Your task to perform on an android device: Go to wifi settings Image 0: 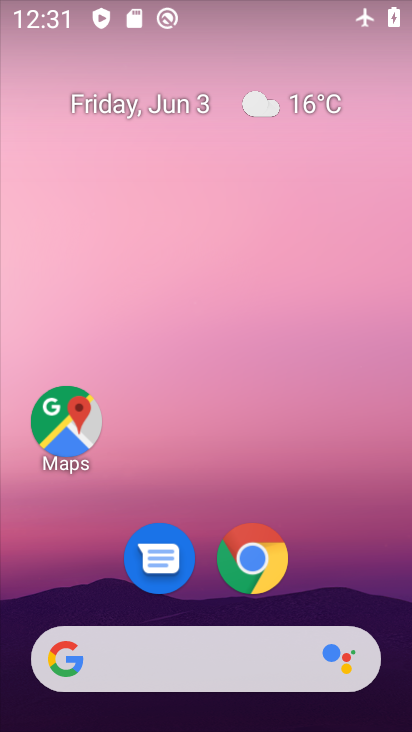
Step 0: drag from (386, 591) to (391, 226)
Your task to perform on an android device: Go to wifi settings Image 1: 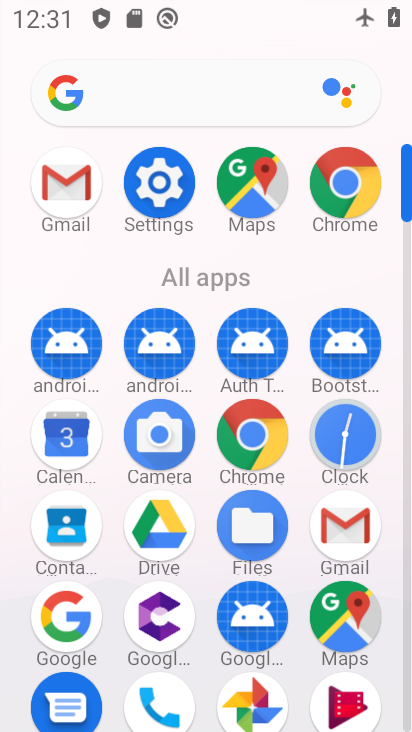
Step 1: click (174, 211)
Your task to perform on an android device: Go to wifi settings Image 2: 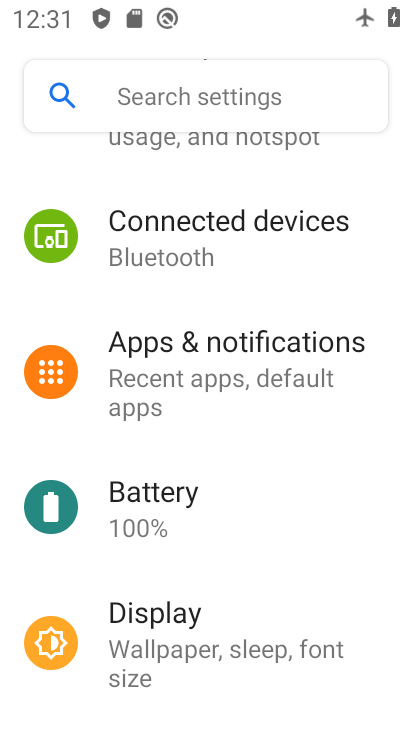
Step 2: drag from (321, 492) to (311, 347)
Your task to perform on an android device: Go to wifi settings Image 3: 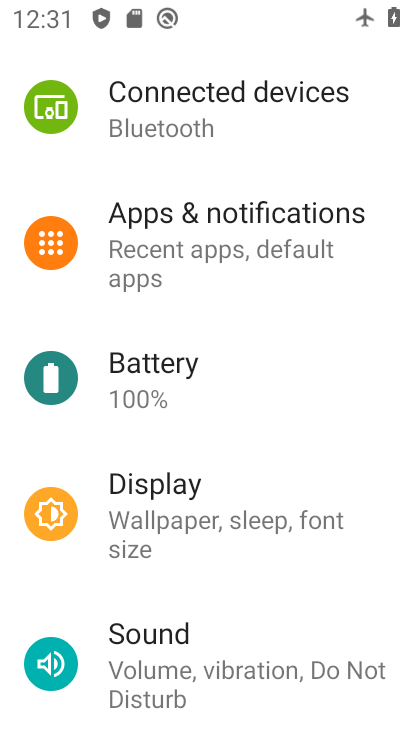
Step 3: drag from (311, 472) to (306, 358)
Your task to perform on an android device: Go to wifi settings Image 4: 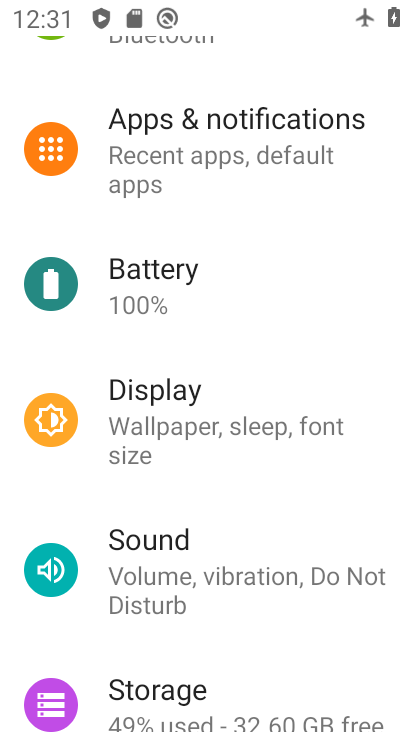
Step 4: drag from (300, 491) to (341, 308)
Your task to perform on an android device: Go to wifi settings Image 5: 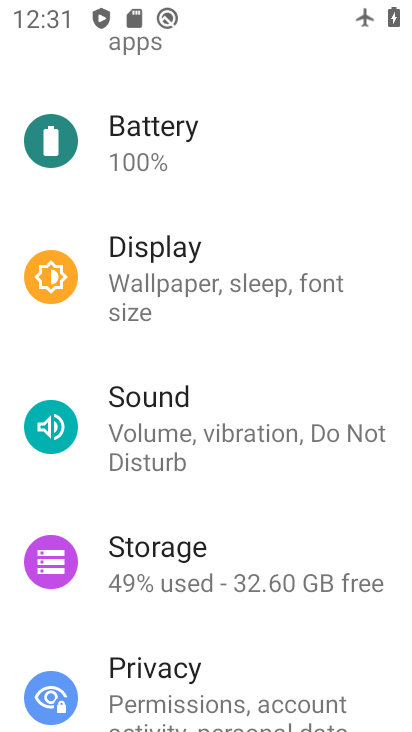
Step 5: drag from (360, 382) to (372, 335)
Your task to perform on an android device: Go to wifi settings Image 6: 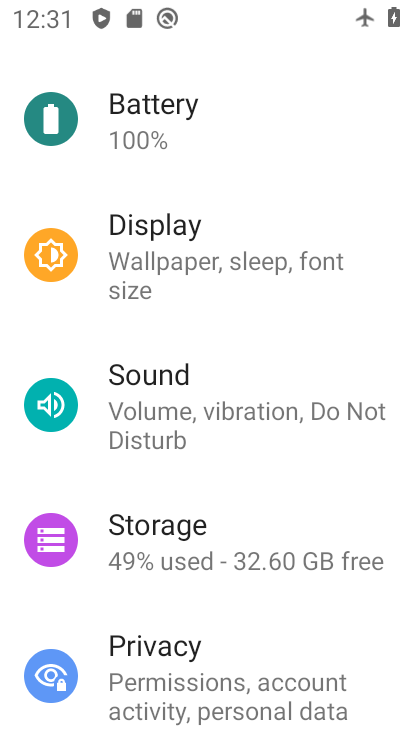
Step 6: drag from (330, 460) to (321, 337)
Your task to perform on an android device: Go to wifi settings Image 7: 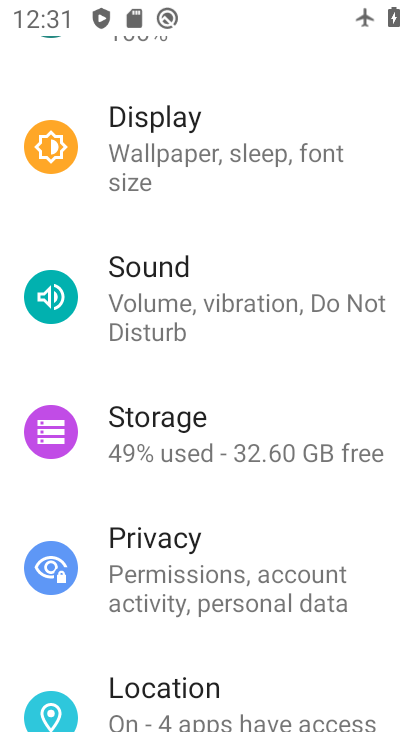
Step 7: drag from (312, 526) to (318, 381)
Your task to perform on an android device: Go to wifi settings Image 8: 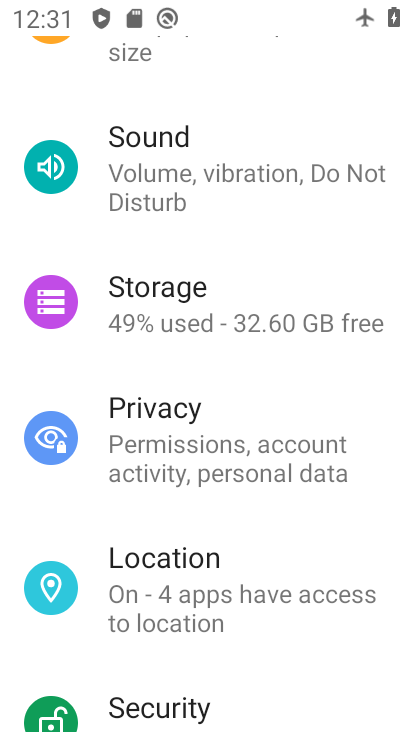
Step 8: drag from (332, 603) to (355, 405)
Your task to perform on an android device: Go to wifi settings Image 9: 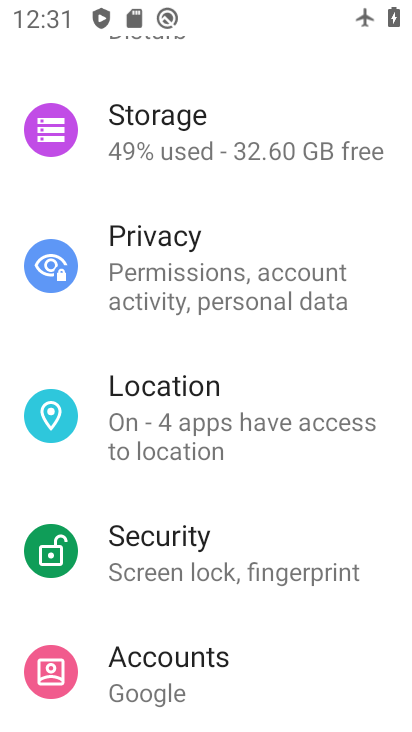
Step 9: drag from (320, 623) to (304, 466)
Your task to perform on an android device: Go to wifi settings Image 10: 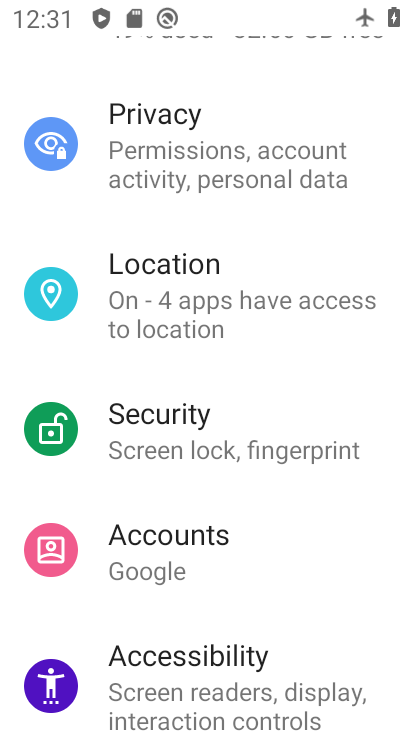
Step 10: drag from (319, 554) to (327, 431)
Your task to perform on an android device: Go to wifi settings Image 11: 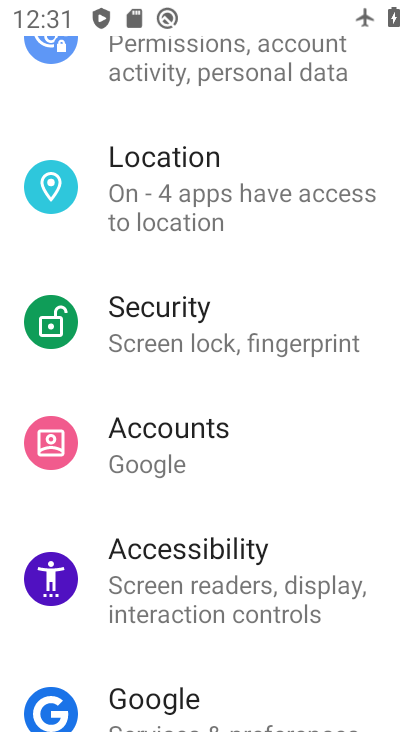
Step 11: drag from (340, 476) to (355, 343)
Your task to perform on an android device: Go to wifi settings Image 12: 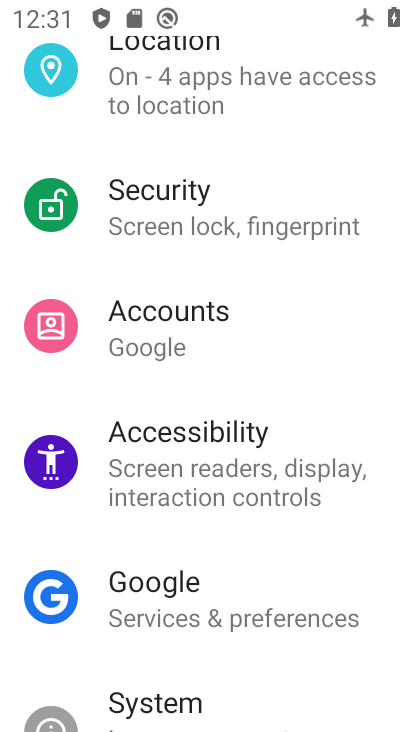
Step 12: drag from (367, 524) to (380, 323)
Your task to perform on an android device: Go to wifi settings Image 13: 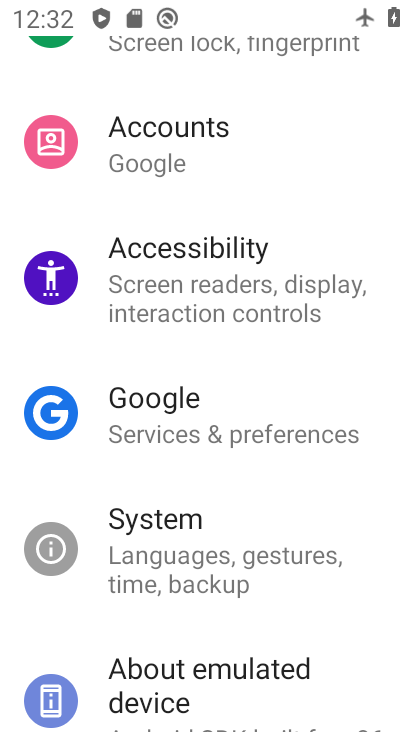
Step 13: drag from (369, 213) to (362, 351)
Your task to perform on an android device: Go to wifi settings Image 14: 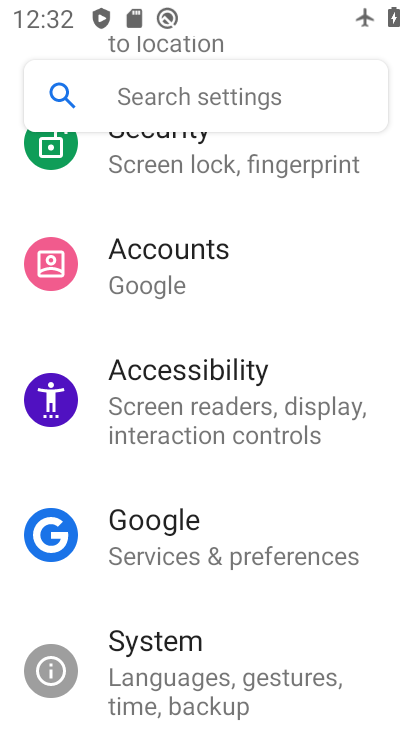
Step 14: drag from (353, 220) to (353, 353)
Your task to perform on an android device: Go to wifi settings Image 15: 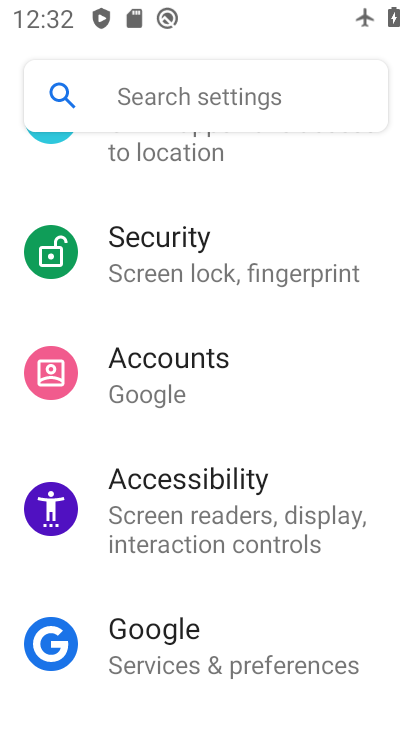
Step 15: drag from (341, 229) to (348, 367)
Your task to perform on an android device: Go to wifi settings Image 16: 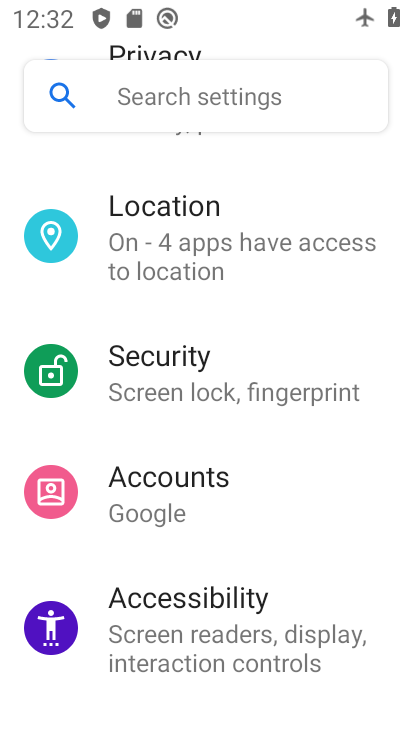
Step 16: drag from (321, 183) to (337, 333)
Your task to perform on an android device: Go to wifi settings Image 17: 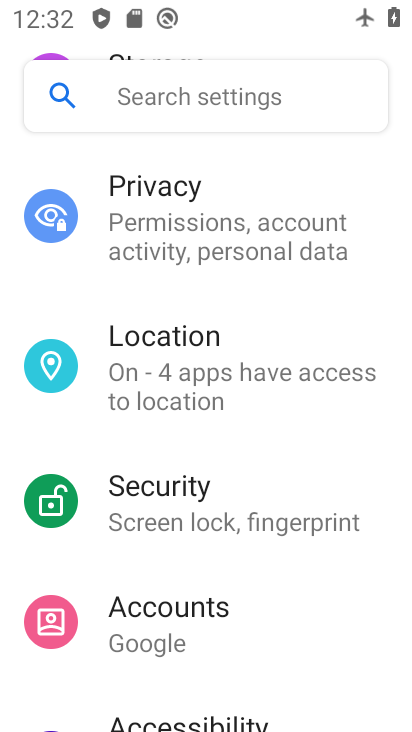
Step 17: drag from (356, 225) to (368, 392)
Your task to perform on an android device: Go to wifi settings Image 18: 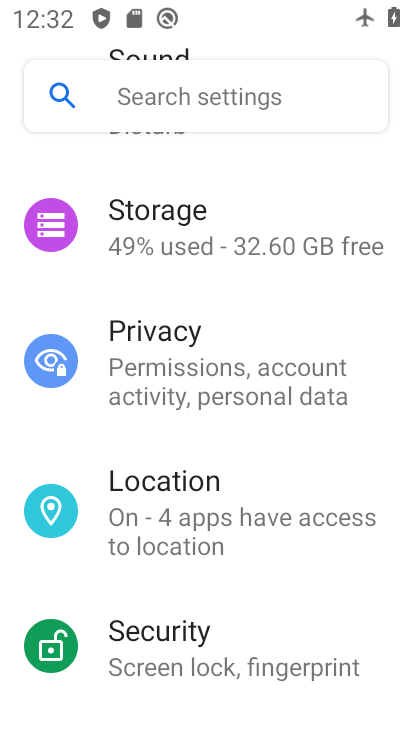
Step 18: drag from (355, 276) to (361, 396)
Your task to perform on an android device: Go to wifi settings Image 19: 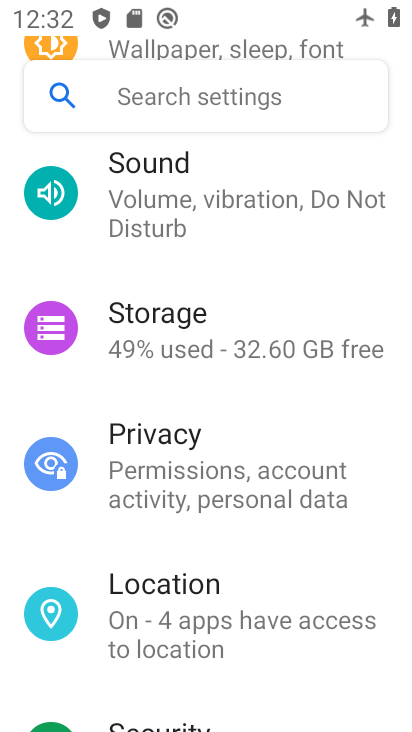
Step 19: drag from (332, 266) to (328, 391)
Your task to perform on an android device: Go to wifi settings Image 20: 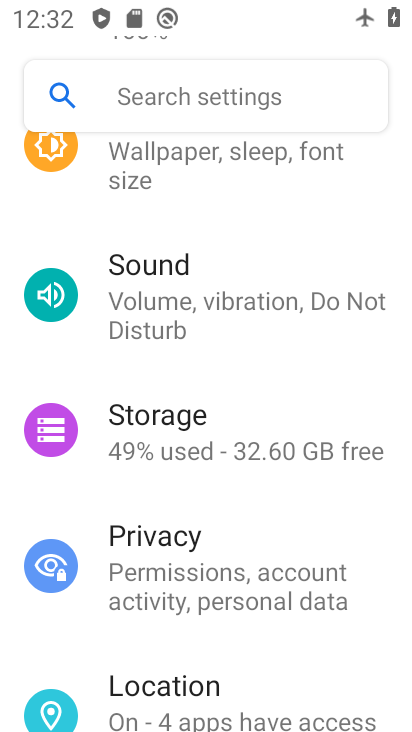
Step 20: drag from (320, 251) to (345, 375)
Your task to perform on an android device: Go to wifi settings Image 21: 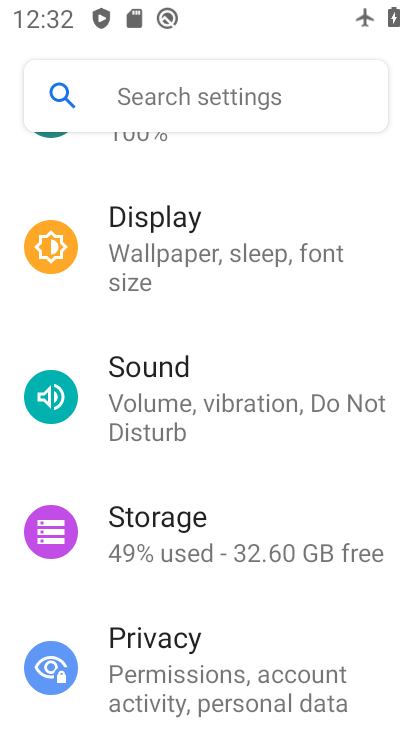
Step 21: drag from (349, 224) to (344, 374)
Your task to perform on an android device: Go to wifi settings Image 22: 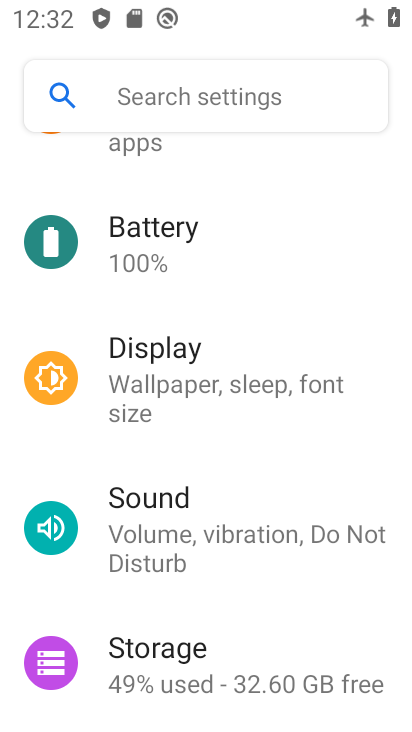
Step 22: drag from (334, 261) to (328, 377)
Your task to perform on an android device: Go to wifi settings Image 23: 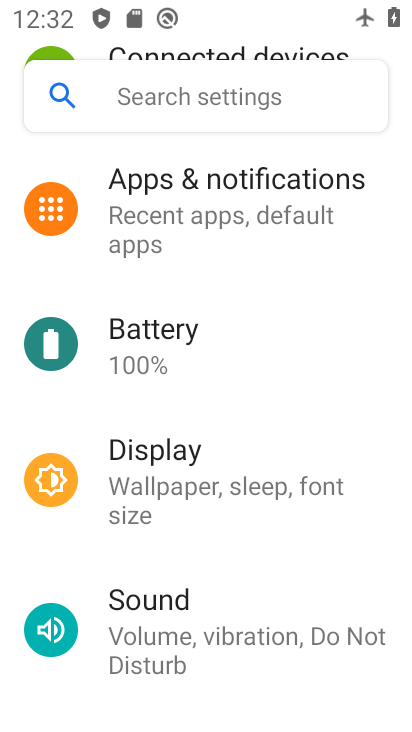
Step 23: drag from (310, 255) to (310, 388)
Your task to perform on an android device: Go to wifi settings Image 24: 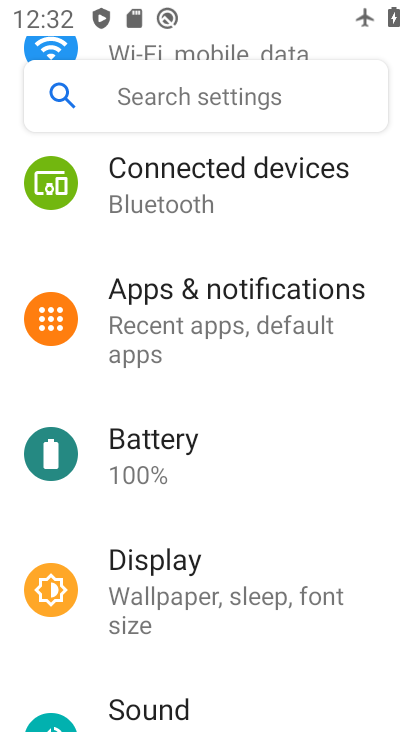
Step 24: drag from (349, 206) to (345, 381)
Your task to perform on an android device: Go to wifi settings Image 25: 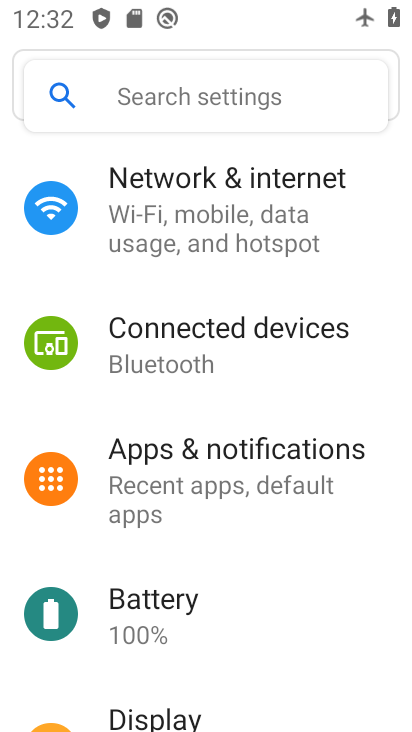
Step 25: click (316, 243)
Your task to perform on an android device: Go to wifi settings Image 26: 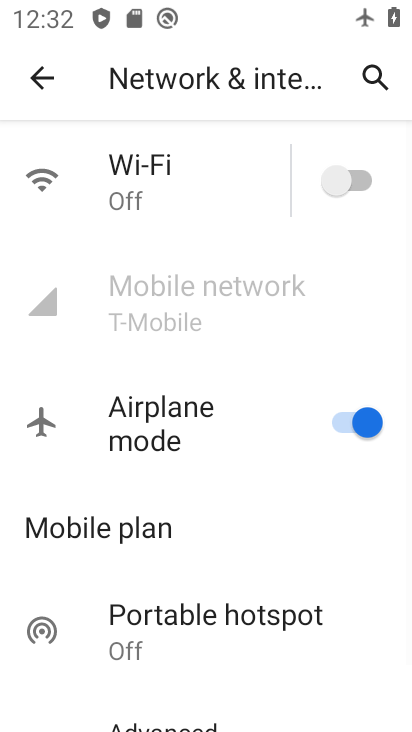
Step 26: click (183, 194)
Your task to perform on an android device: Go to wifi settings Image 27: 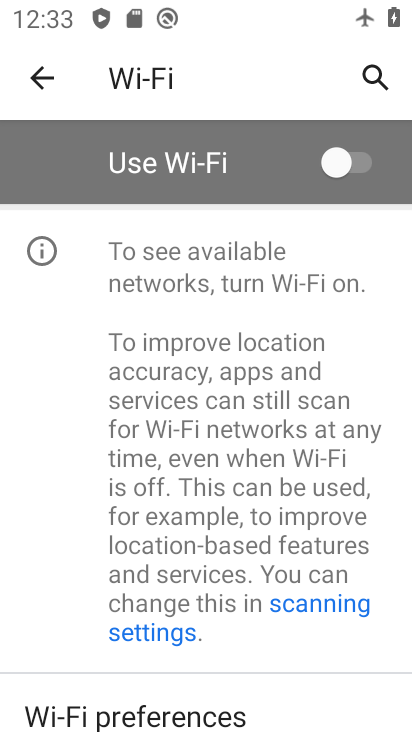
Step 27: task complete